Your task to perform on an android device: all mails in gmail Image 0: 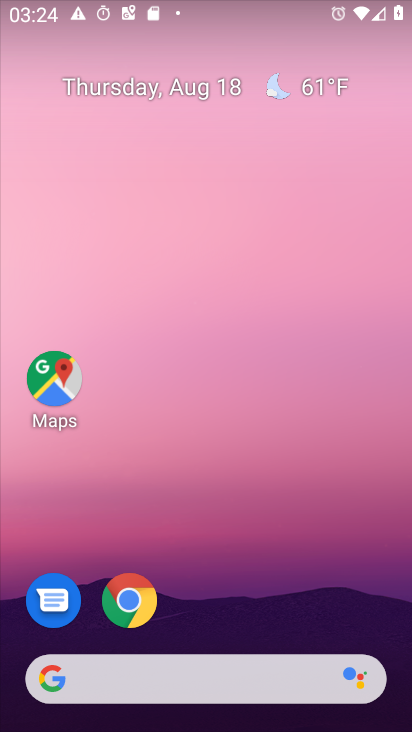
Step 0: press home button
Your task to perform on an android device: all mails in gmail Image 1: 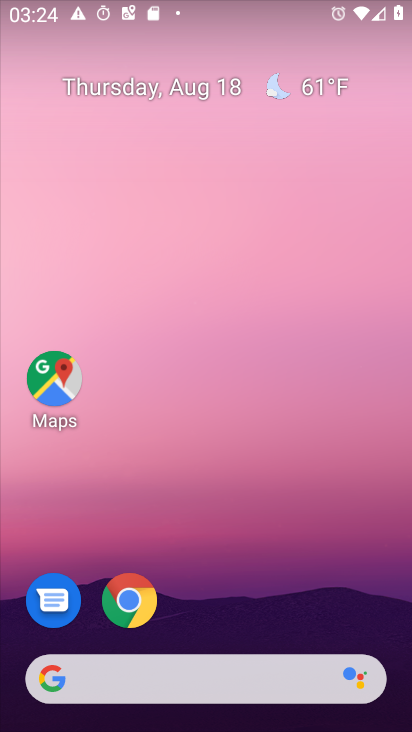
Step 1: drag from (318, 558) to (381, 183)
Your task to perform on an android device: all mails in gmail Image 2: 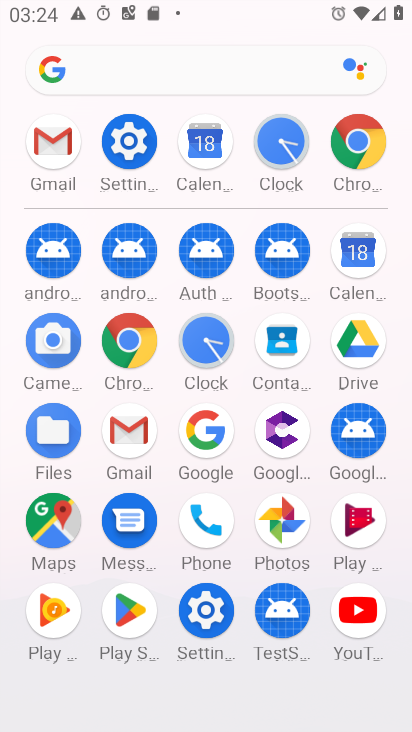
Step 2: click (43, 145)
Your task to perform on an android device: all mails in gmail Image 3: 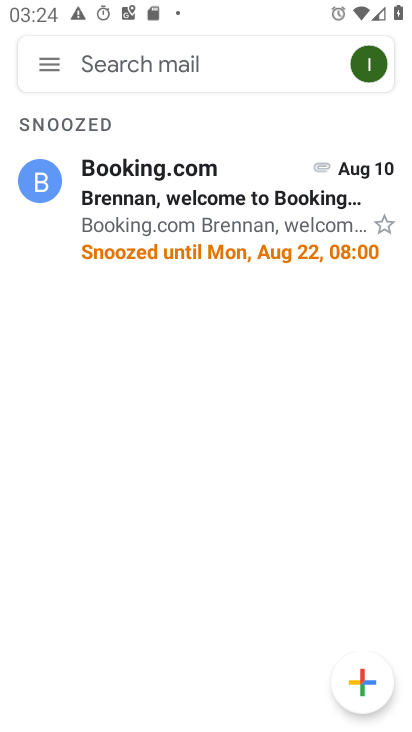
Step 3: click (54, 72)
Your task to perform on an android device: all mails in gmail Image 4: 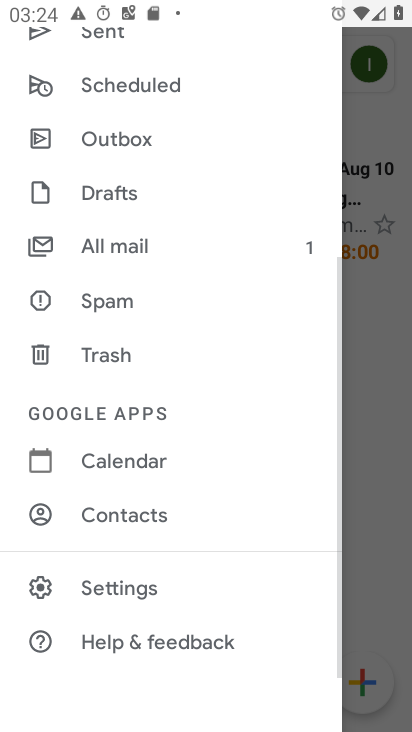
Step 4: click (116, 245)
Your task to perform on an android device: all mails in gmail Image 5: 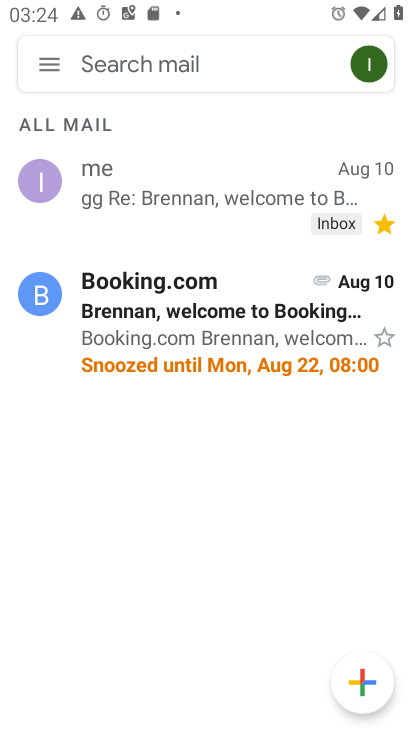
Step 5: task complete